Your task to perform on an android device: check data usage Image 0: 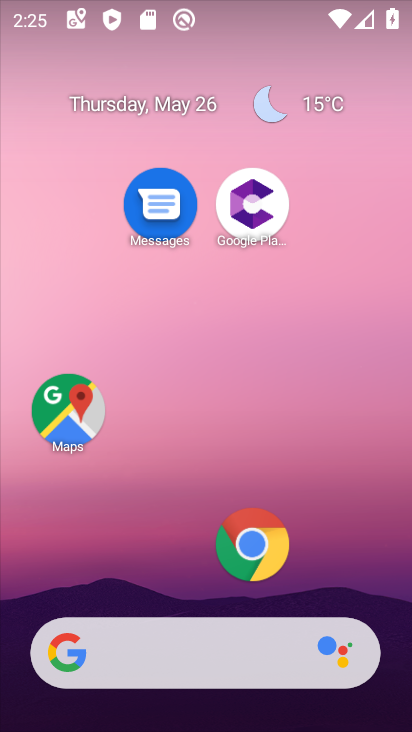
Step 0: drag from (244, 13) to (312, 548)
Your task to perform on an android device: check data usage Image 1: 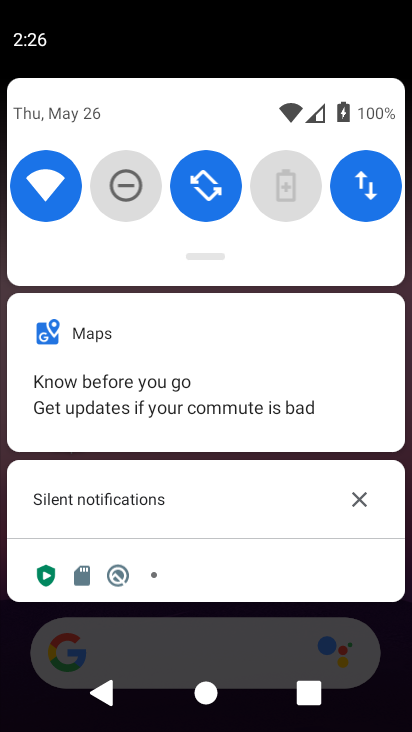
Step 1: click (375, 204)
Your task to perform on an android device: check data usage Image 2: 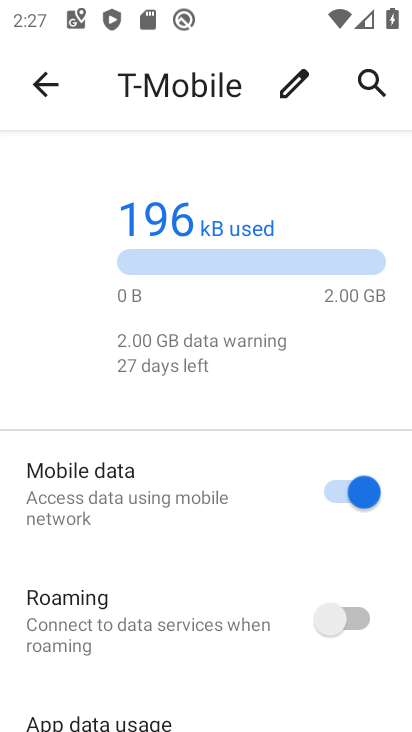
Step 2: task complete